Your task to perform on an android device: turn on bluetooth scan Image 0: 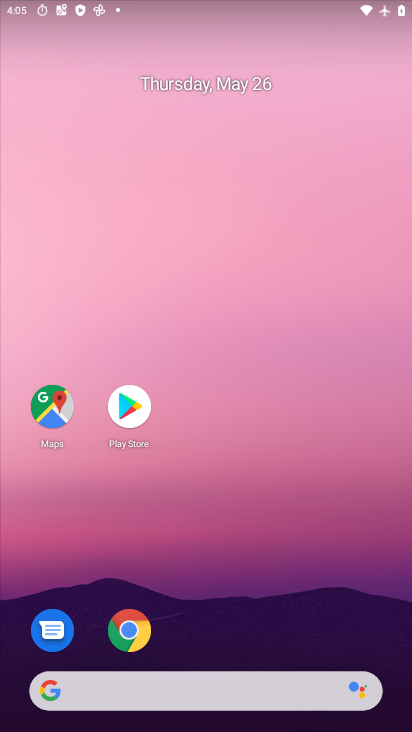
Step 0: drag from (260, 608) to (274, 16)
Your task to perform on an android device: turn on bluetooth scan Image 1: 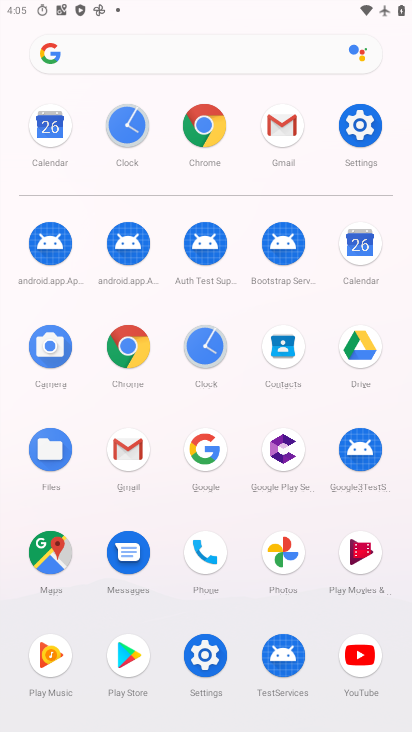
Step 1: click (367, 127)
Your task to perform on an android device: turn on bluetooth scan Image 2: 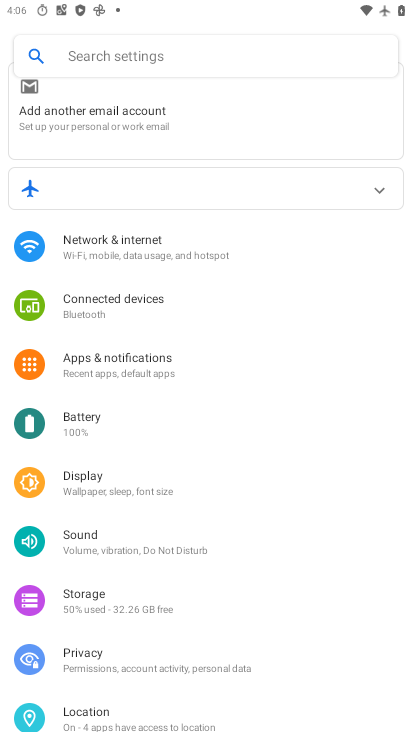
Step 2: click (102, 712)
Your task to perform on an android device: turn on bluetooth scan Image 3: 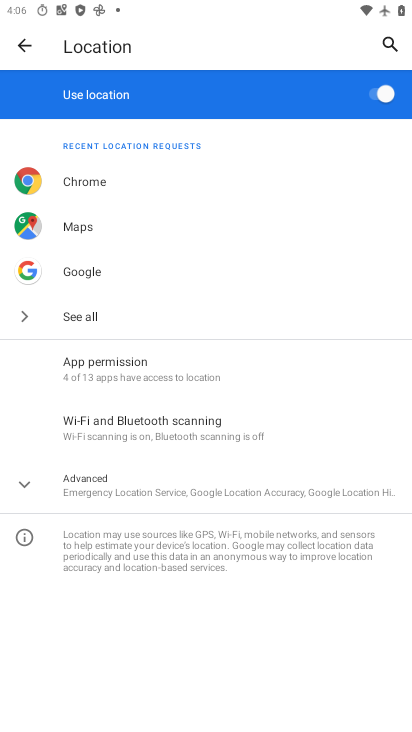
Step 3: click (112, 488)
Your task to perform on an android device: turn on bluetooth scan Image 4: 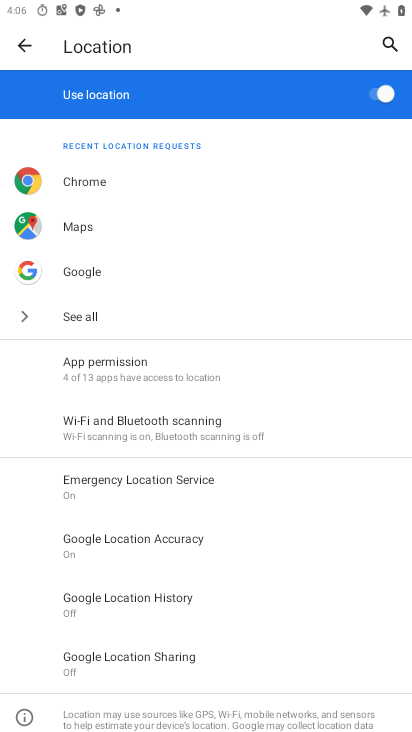
Step 4: click (163, 414)
Your task to perform on an android device: turn on bluetooth scan Image 5: 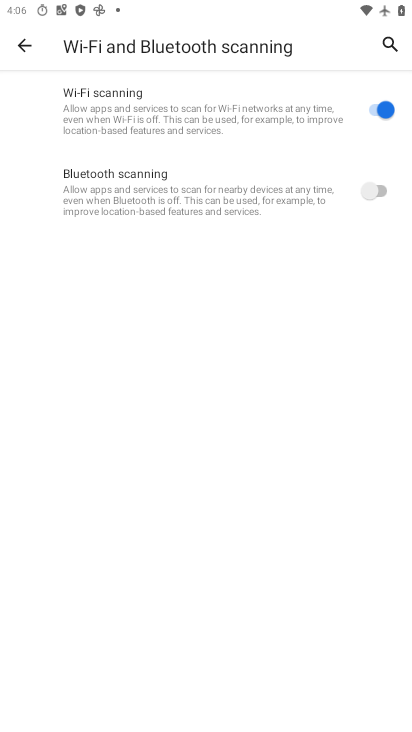
Step 5: click (384, 185)
Your task to perform on an android device: turn on bluetooth scan Image 6: 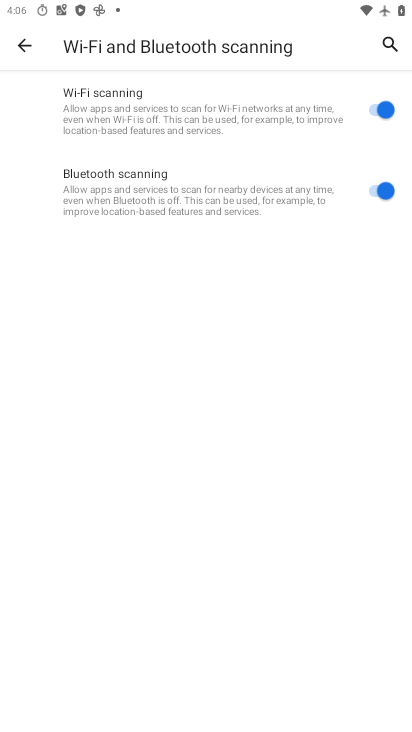
Step 6: task complete